Your task to perform on an android device: choose inbox layout in the gmail app Image 0: 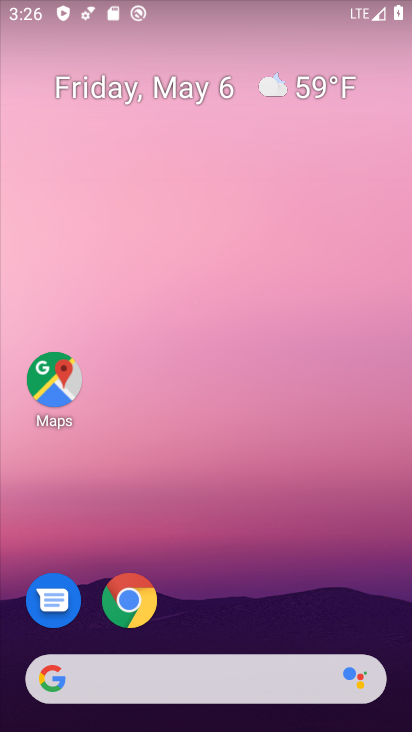
Step 0: drag from (221, 599) to (251, 73)
Your task to perform on an android device: choose inbox layout in the gmail app Image 1: 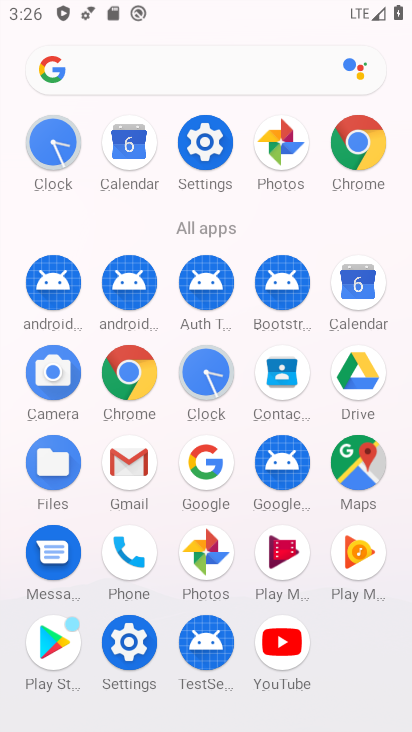
Step 1: click (133, 482)
Your task to perform on an android device: choose inbox layout in the gmail app Image 2: 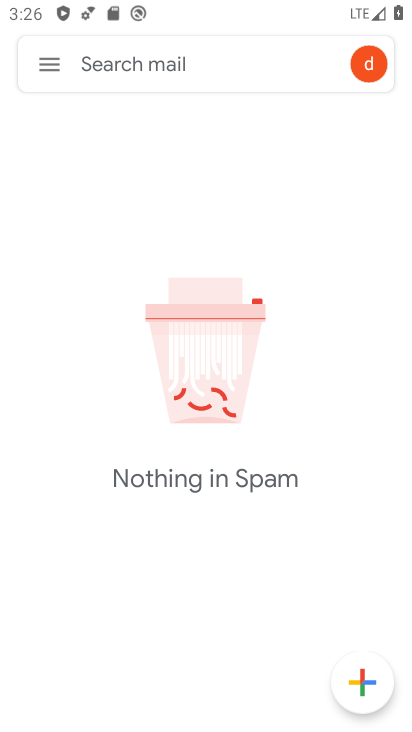
Step 2: click (61, 65)
Your task to perform on an android device: choose inbox layout in the gmail app Image 3: 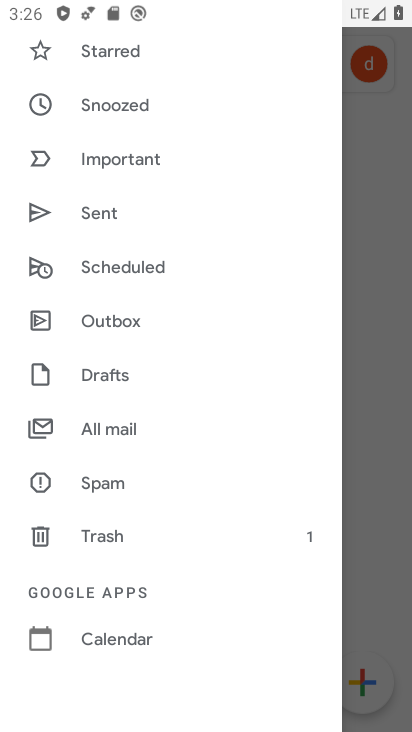
Step 3: drag from (121, 561) to (148, 212)
Your task to perform on an android device: choose inbox layout in the gmail app Image 4: 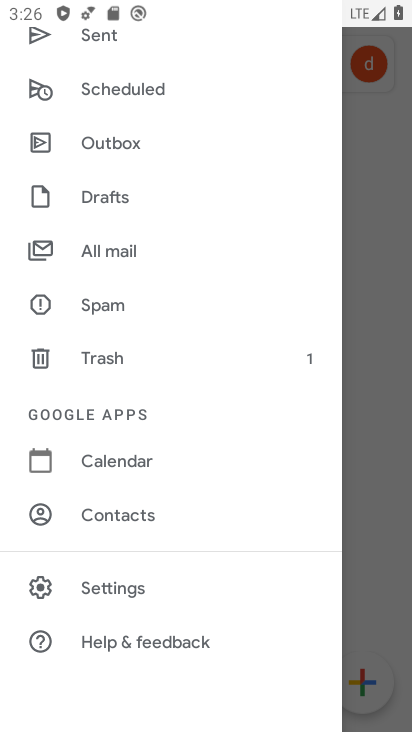
Step 4: click (144, 590)
Your task to perform on an android device: choose inbox layout in the gmail app Image 5: 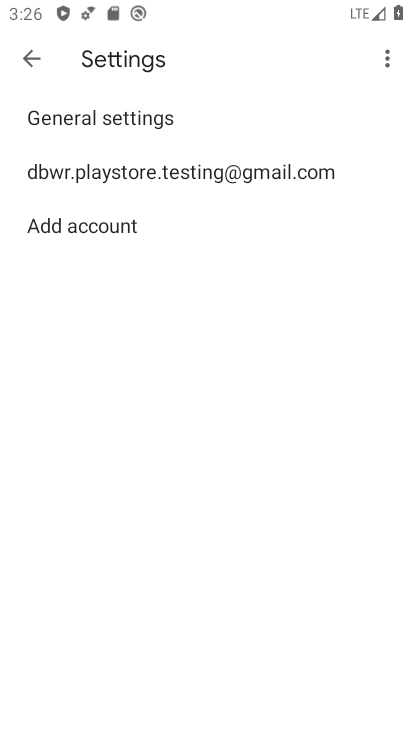
Step 5: click (131, 178)
Your task to perform on an android device: choose inbox layout in the gmail app Image 6: 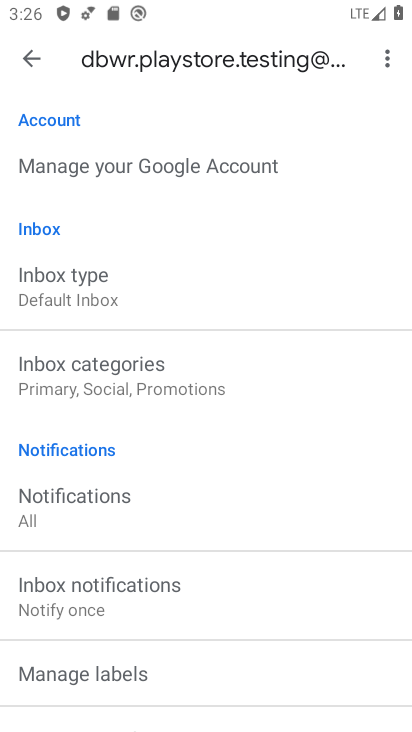
Step 6: click (91, 282)
Your task to perform on an android device: choose inbox layout in the gmail app Image 7: 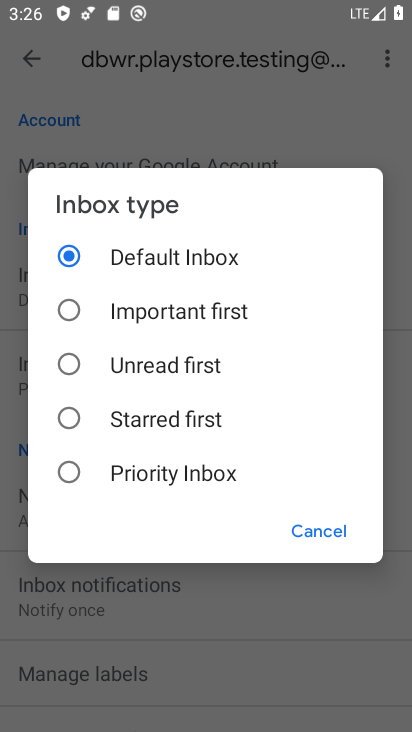
Step 7: click (66, 481)
Your task to perform on an android device: choose inbox layout in the gmail app Image 8: 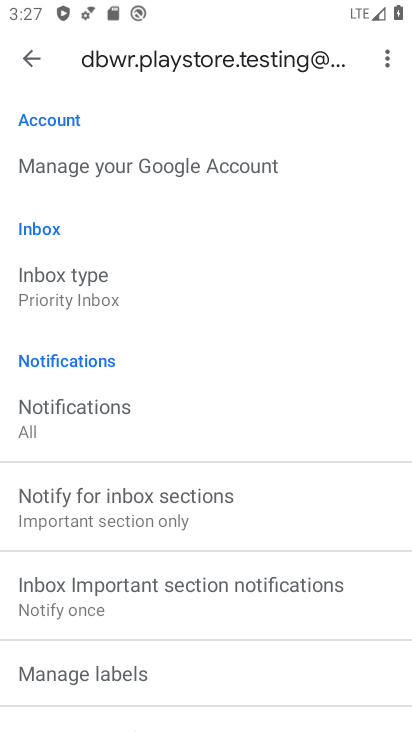
Step 8: task complete